Your task to perform on an android device: Open Yahoo.com Image 0: 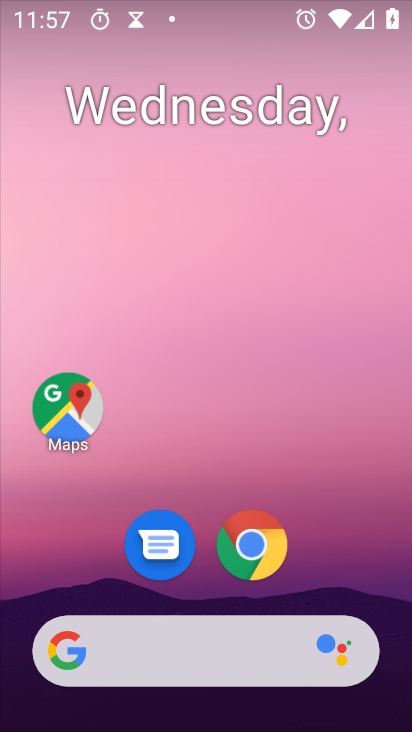
Step 0: press home button
Your task to perform on an android device: Open Yahoo.com Image 1: 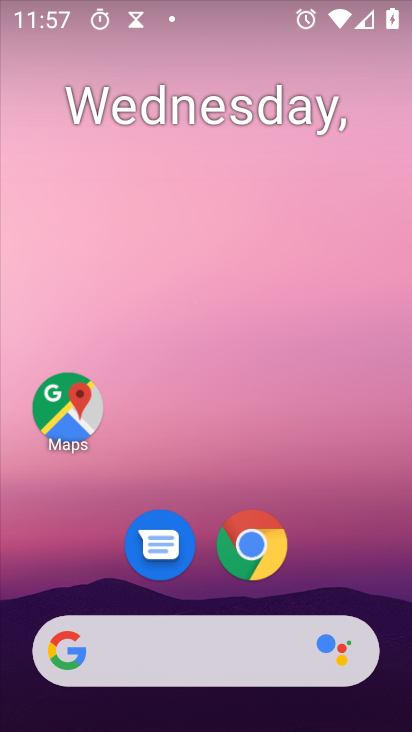
Step 1: click (271, 553)
Your task to perform on an android device: Open Yahoo.com Image 2: 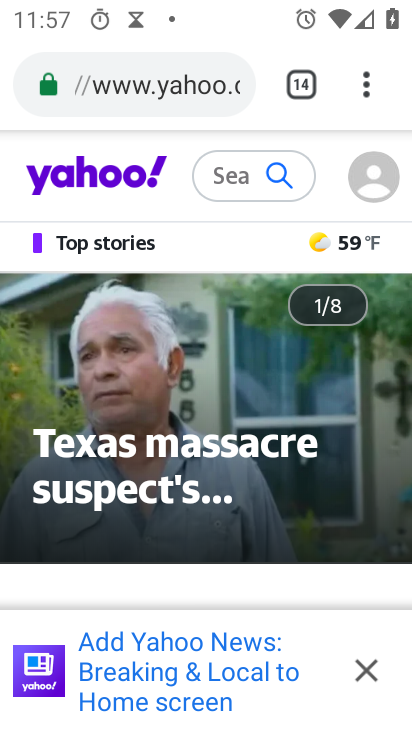
Step 2: task complete